Your task to perform on an android device: allow cookies in the chrome app Image 0: 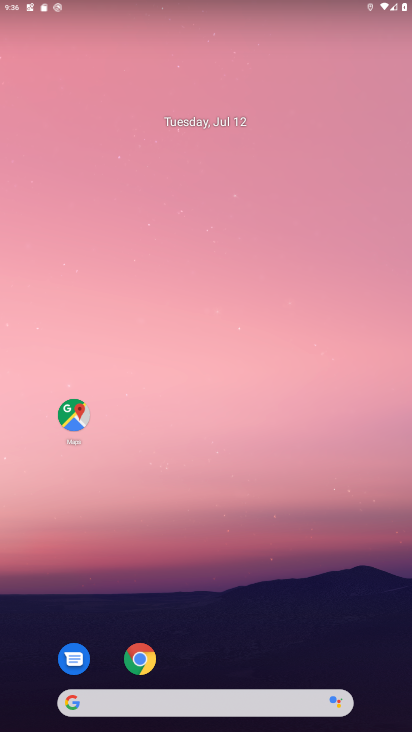
Step 0: drag from (260, 631) to (291, 67)
Your task to perform on an android device: allow cookies in the chrome app Image 1: 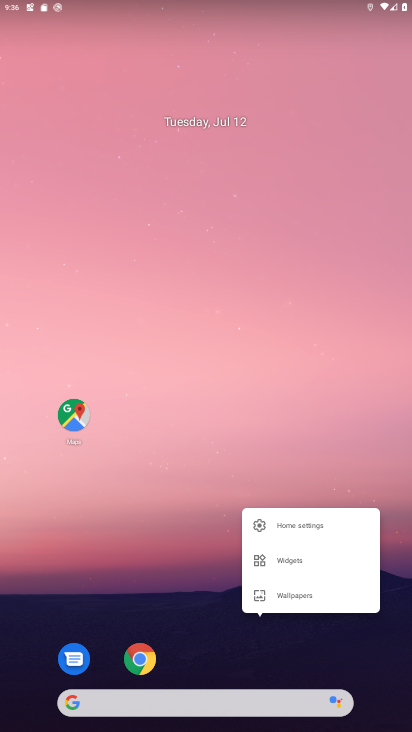
Step 1: click (209, 395)
Your task to perform on an android device: allow cookies in the chrome app Image 2: 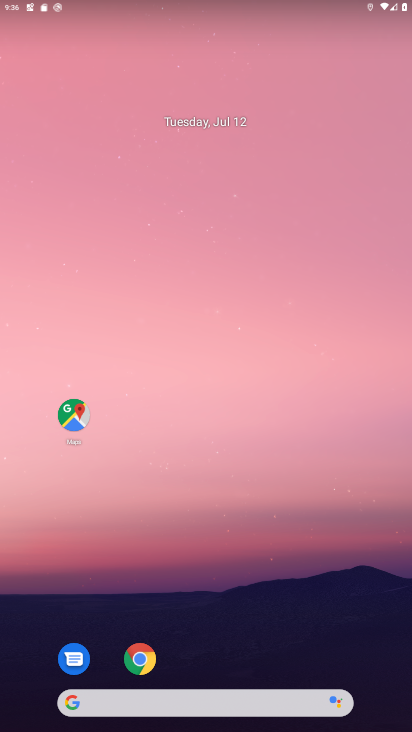
Step 2: drag from (221, 639) to (247, 213)
Your task to perform on an android device: allow cookies in the chrome app Image 3: 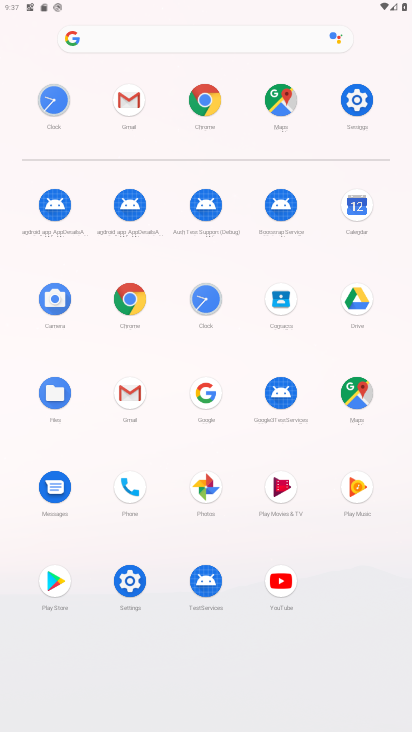
Step 3: click (125, 304)
Your task to perform on an android device: allow cookies in the chrome app Image 4: 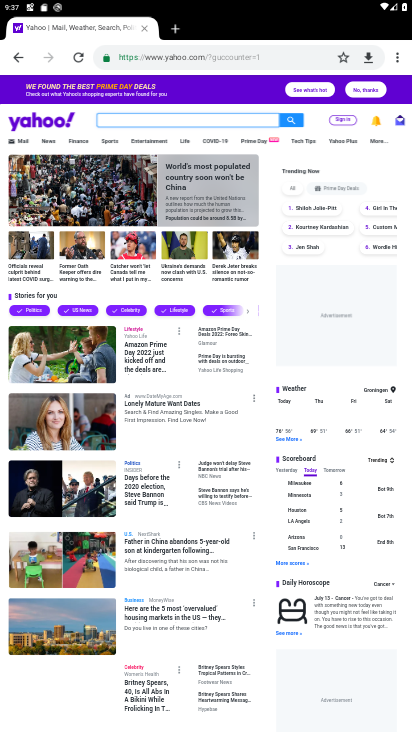
Step 4: drag from (394, 58) to (286, 380)
Your task to perform on an android device: allow cookies in the chrome app Image 5: 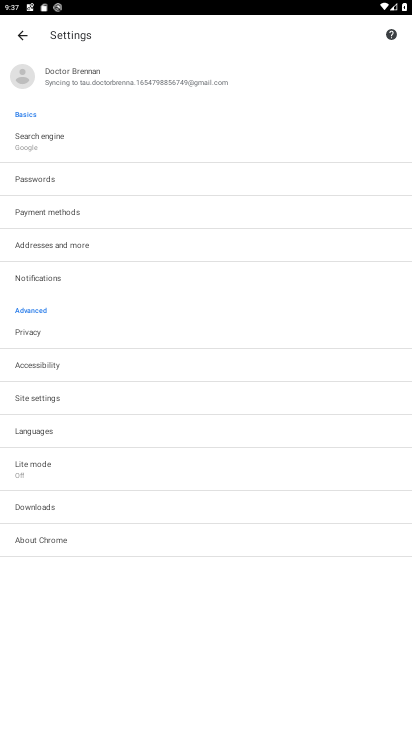
Step 5: click (53, 401)
Your task to perform on an android device: allow cookies in the chrome app Image 6: 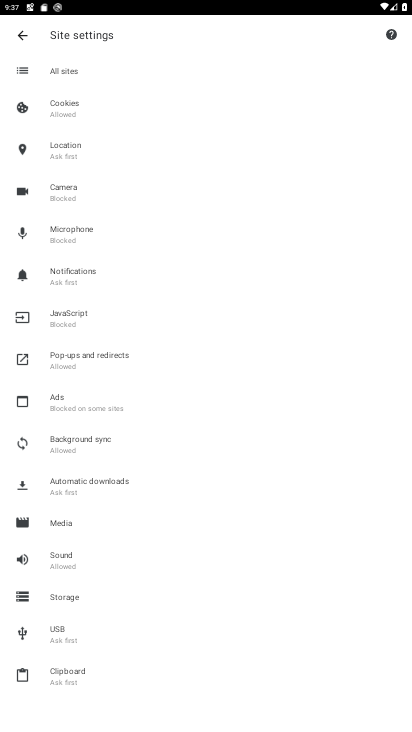
Step 6: click (63, 104)
Your task to perform on an android device: allow cookies in the chrome app Image 7: 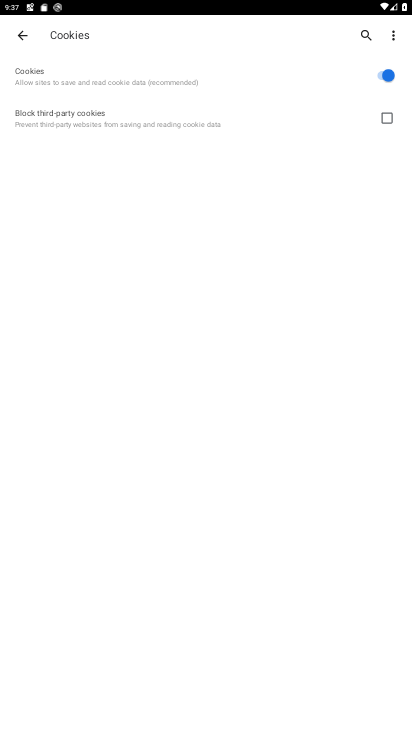
Step 7: task complete